Your task to perform on an android device: Open Chrome and go to settings Image 0: 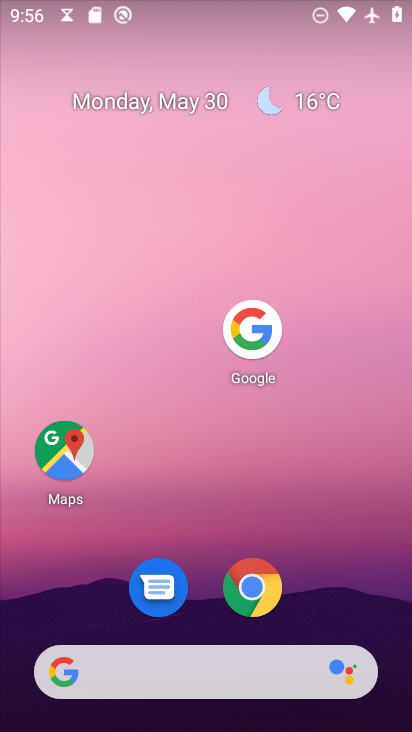
Step 0: click (255, 587)
Your task to perform on an android device: Open Chrome and go to settings Image 1: 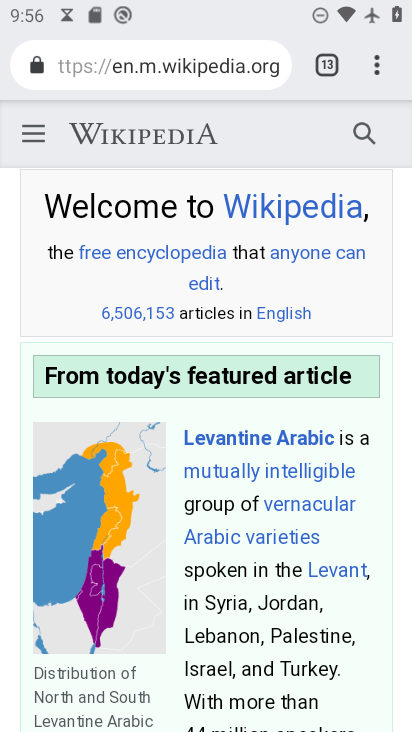
Step 1: task complete